Your task to perform on an android device: move a message to another label in the gmail app Image 0: 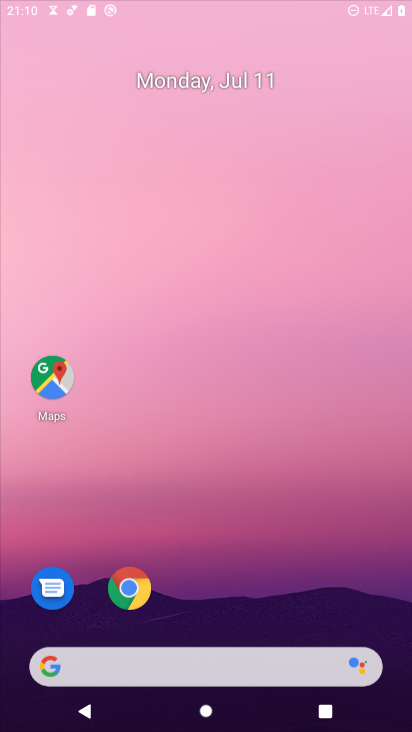
Step 0: press home button
Your task to perform on an android device: move a message to another label in the gmail app Image 1: 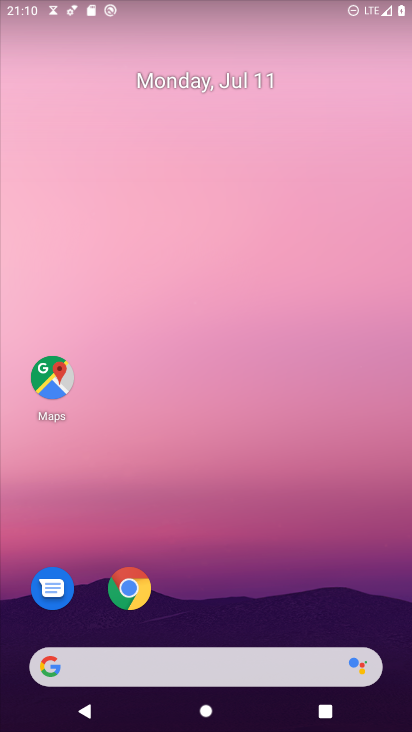
Step 1: drag from (243, 602) to (227, 263)
Your task to perform on an android device: move a message to another label in the gmail app Image 2: 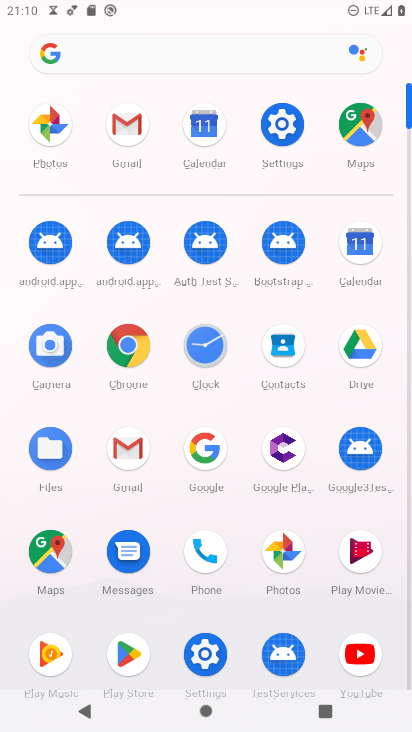
Step 2: click (135, 123)
Your task to perform on an android device: move a message to another label in the gmail app Image 3: 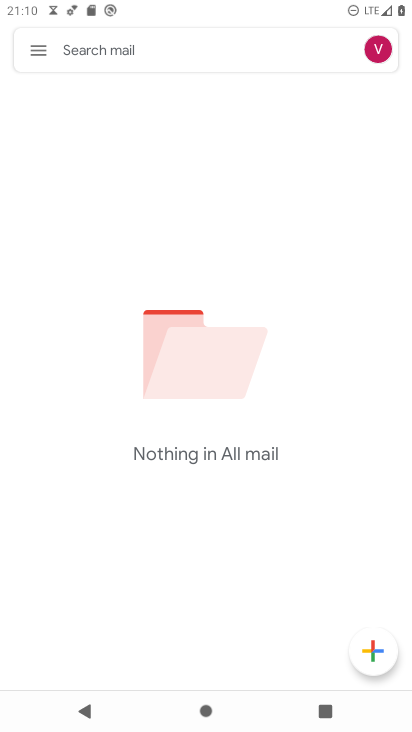
Step 3: click (41, 64)
Your task to perform on an android device: move a message to another label in the gmail app Image 4: 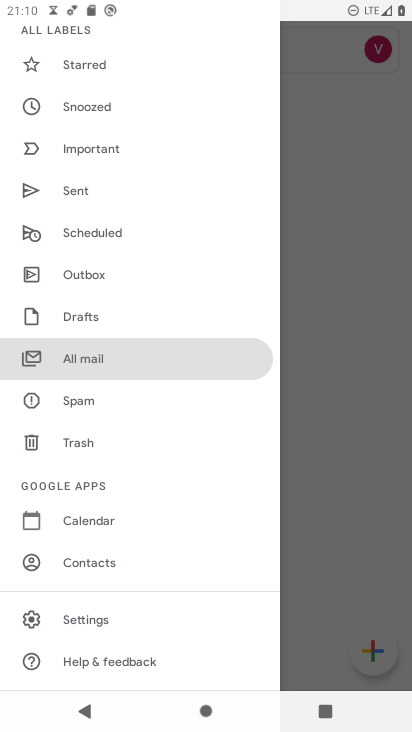
Step 4: click (135, 357)
Your task to perform on an android device: move a message to another label in the gmail app Image 5: 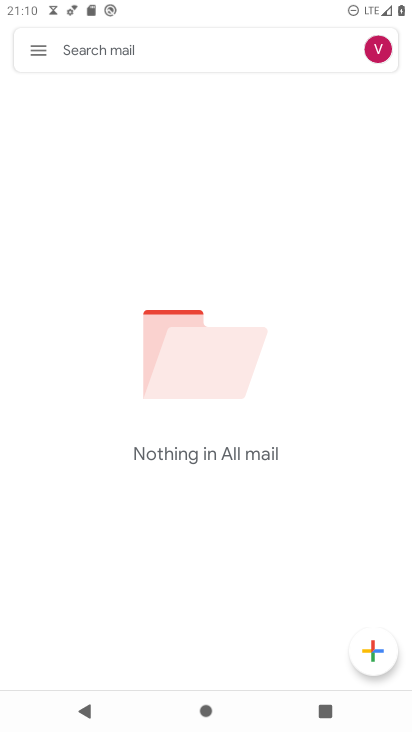
Step 5: task complete